Your task to perform on an android device: Do I have any events this weekend? Image 0: 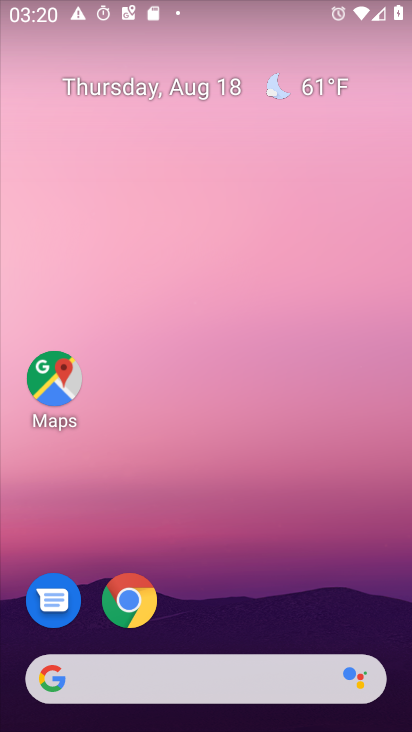
Step 0: press home button
Your task to perform on an android device: Do I have any events this weekend? Image 1: 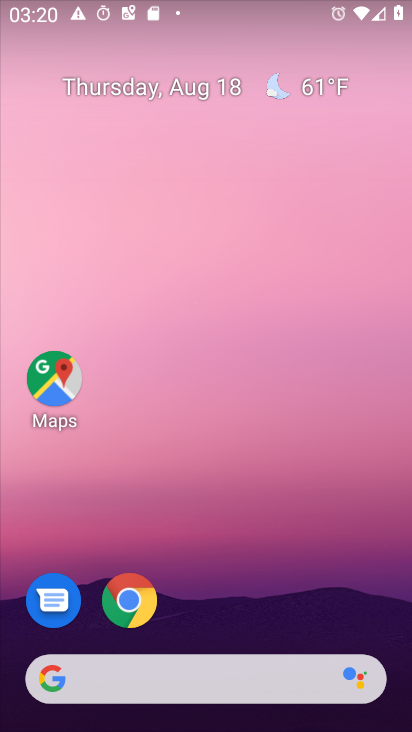
Step 1: drag from (236, 617) to (208, 107)
Your task to perform on an android device: Do I have any events this weekend? Image 2: 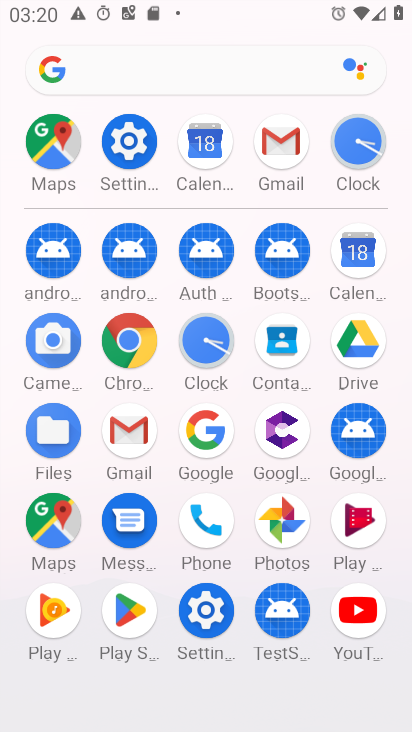
Step 2: click (353, 266)
Your task to perform on an android device: Do I have any events this weekend? Image 3: 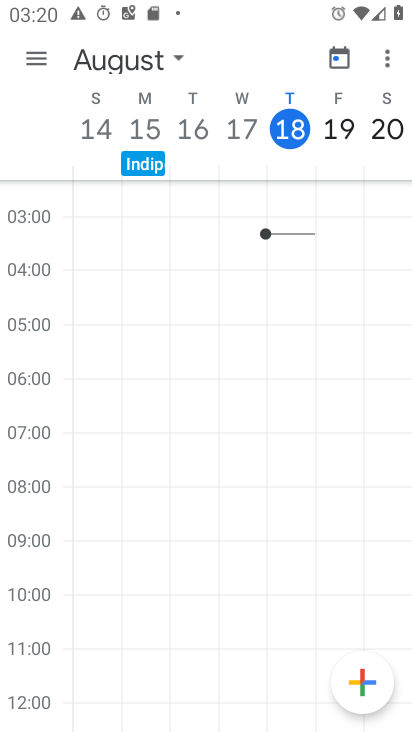
Step 3: click (26, 55)
Your task to perform on an android device: Do I have any events this weekend? Image 4: 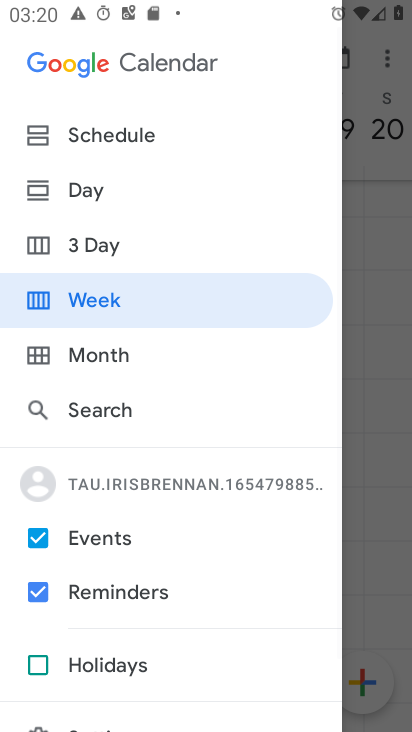
Step 4: click (71, 296)
Your task to perform on an android device: Do I have any events this weekend? Image 5: 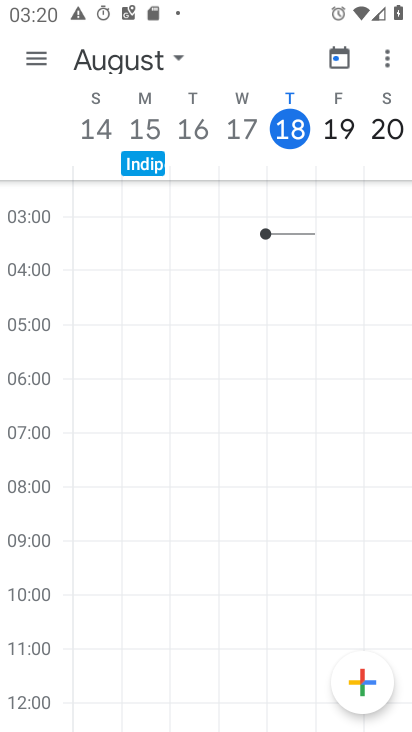
Step 5: task complete